Your task to perform on an android device: Open privacy settings Image 0: 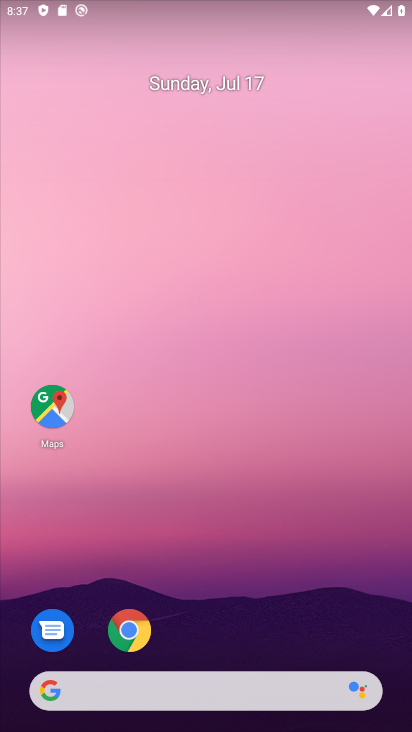
Step 0: drag from (215, 658) to (143, 107)
Your task to perform on an android device: Open privacy settings Image 1: 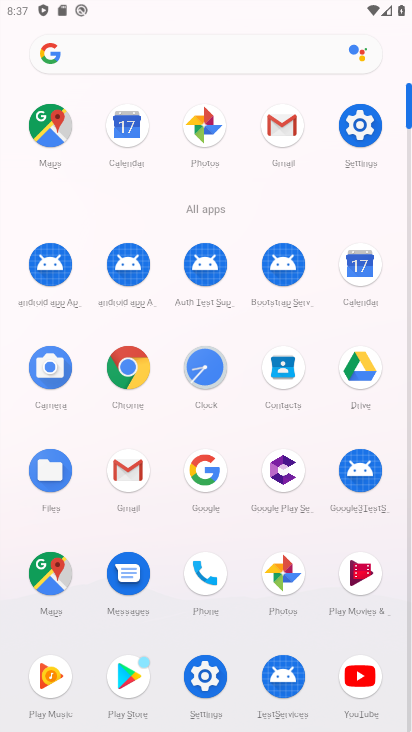
Step 1: click (219, 714)
Your task to perform on an android device: Open privacy settings Image 2: 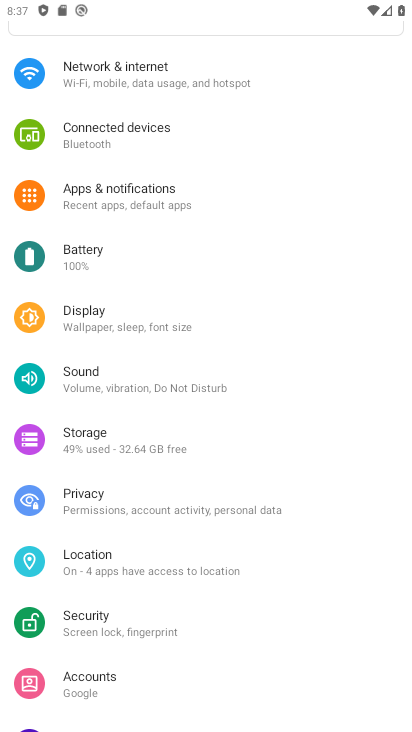
Step 2: click (129, 518)
Your task to perform on an android device: Open privacy settings Image 3: 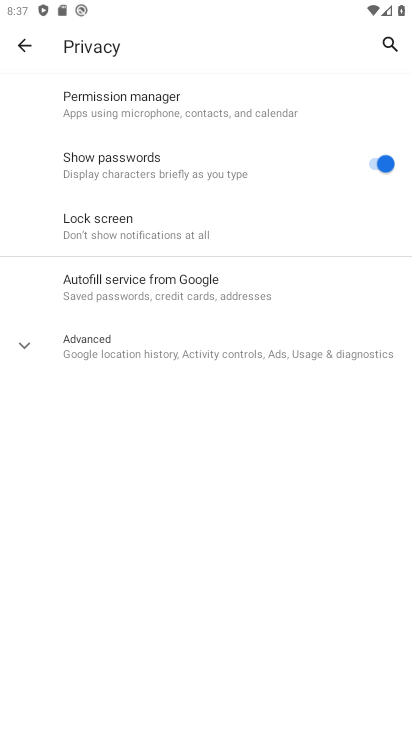
Step 3: task complete